Your task to perform on an android device: What is the recent news? Image 0: 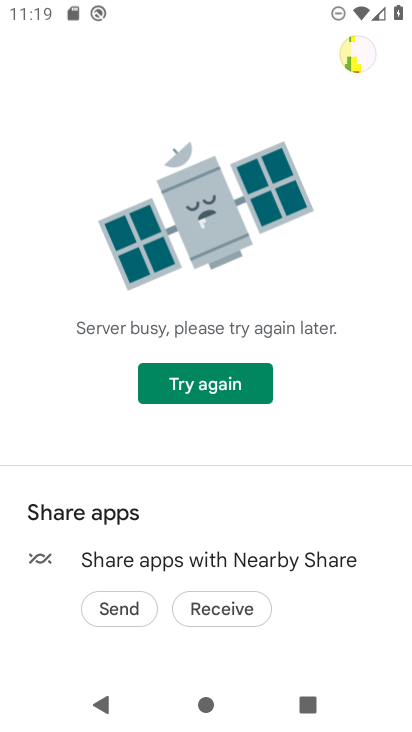
Step 0: press back button
Your task to perform on an android device: What is the recent news? Image 1: 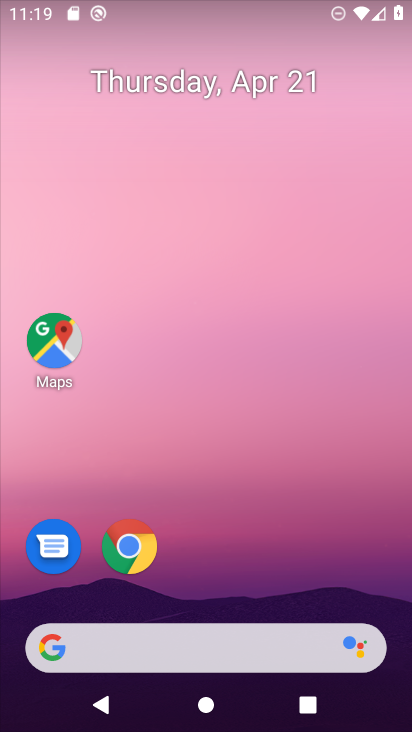
Step 1: drag from (280, 627) to (331, 353)
Your task to perform on an android device: What is the recent news? Image 2: 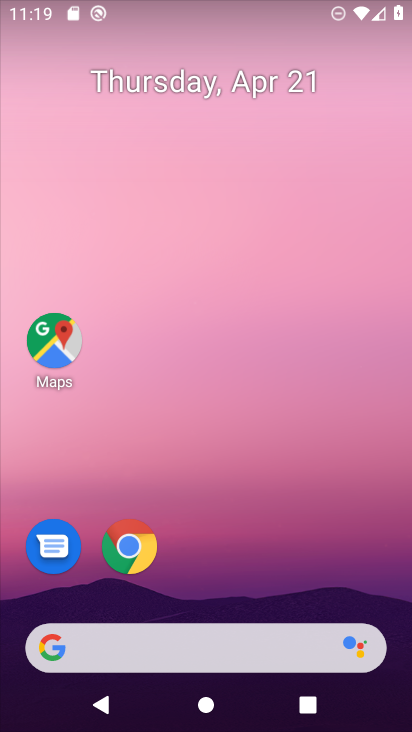
Step 2: drag from (223, 622) to (220, 269)
Your task to perform on an android device: What is the recent news? Image 3: 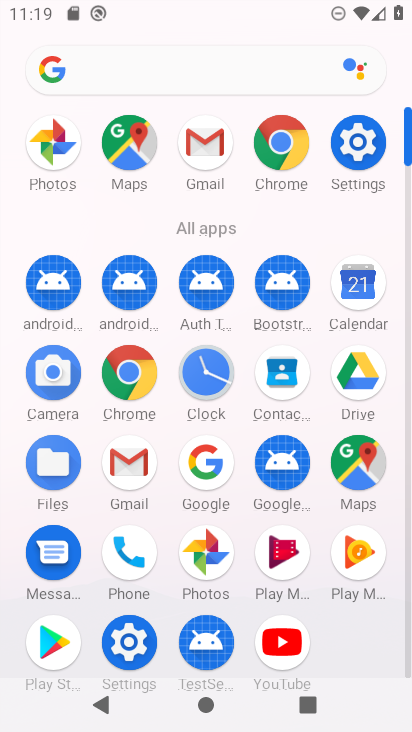
Step 3: click (206, 462)
Your task to perform on an android device: What is the recent news? Image 4: 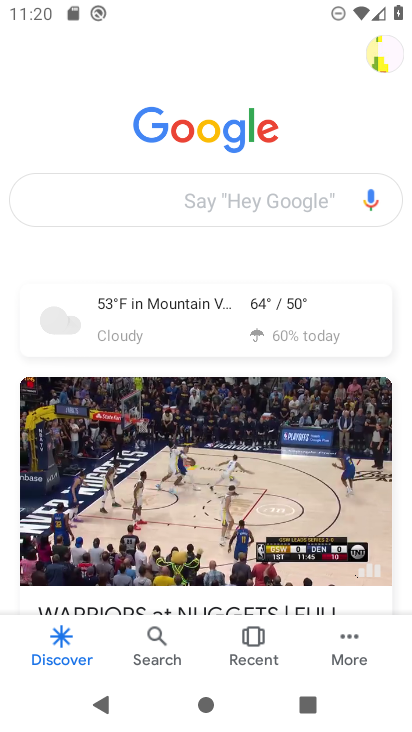
Step 4: click (154, 190)
Your task to perform on an android device: What is the recent news? Image 5: 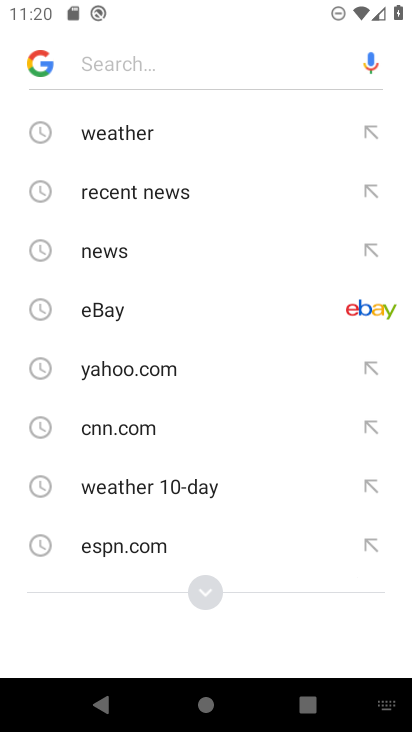
Step 5: click (131, 196)
Your task to perform on an android device: What is the recent news? Image 6: 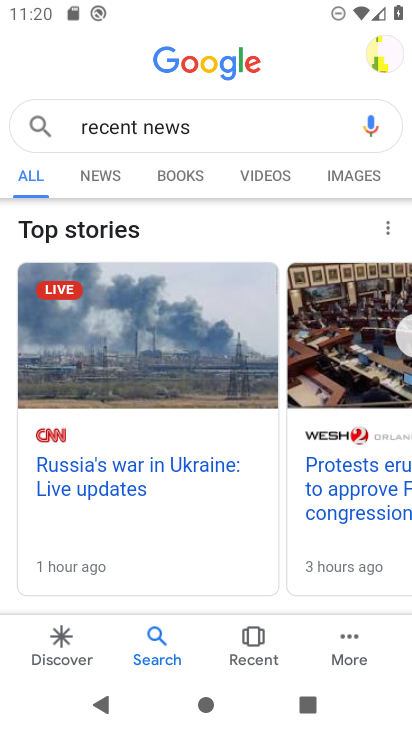
Step 6: task complete